Your task to perform on an android device: turn on bluetooth scan Image 0: 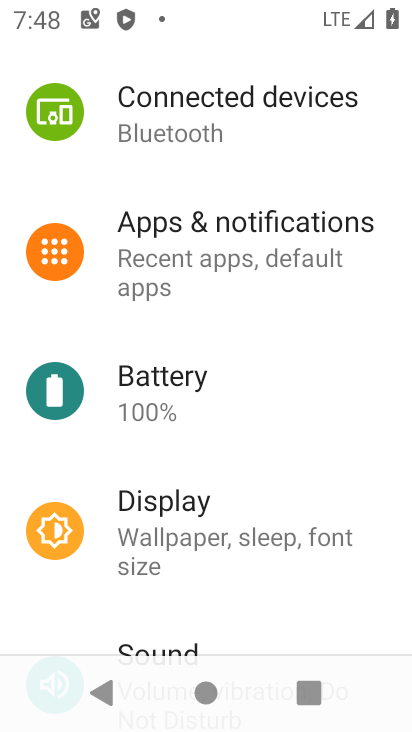
Step 0: drag from (282, 629) to (261, 368)
Your task to perform on an android device: turn on bluetooth scan Image 1: 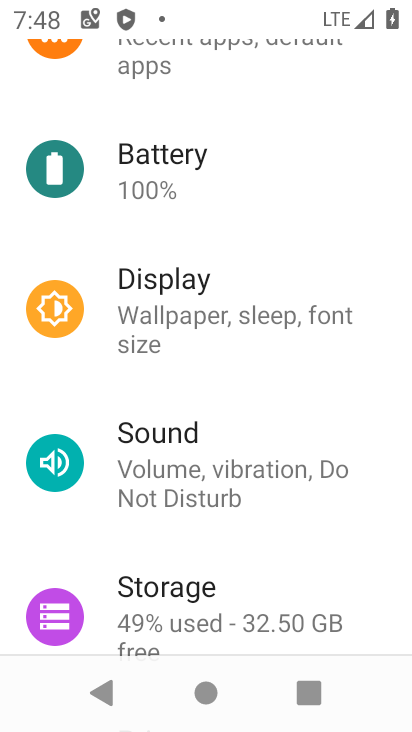
Step 1: drag from (270, 604) to (253, 252)
Your task to perform on an android device: turn on bluetooth scan Image 2: 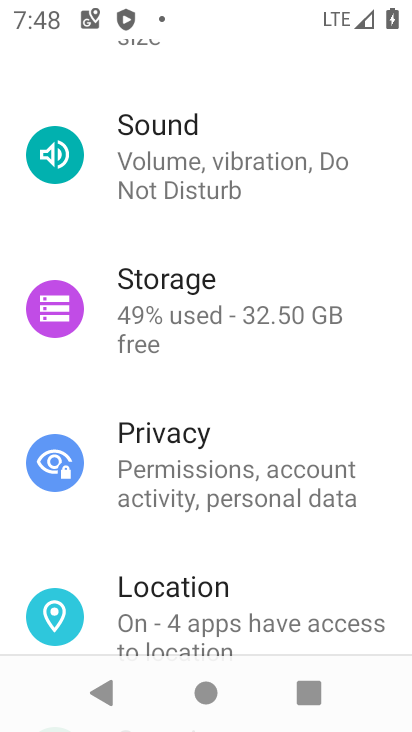
Step 2: drag from (210, 565) to (203, 208)
Your task to perform on an android device: turn on bluetooth scan Image 3: 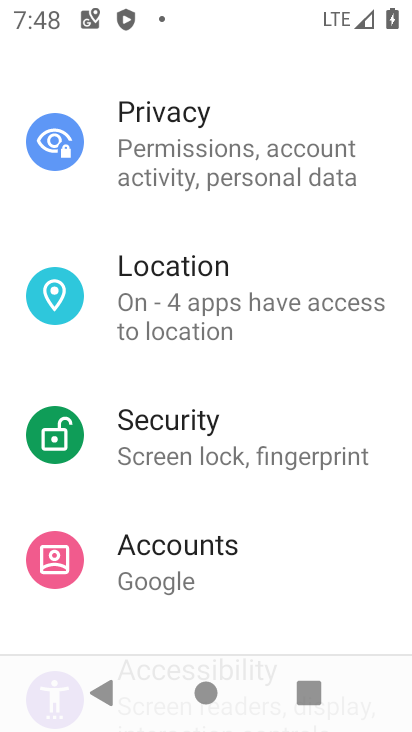
Step 3: drag from (215, 520) to (208, 296)
Your task to perform on an android device: turn on bluetooth scan Image 4: 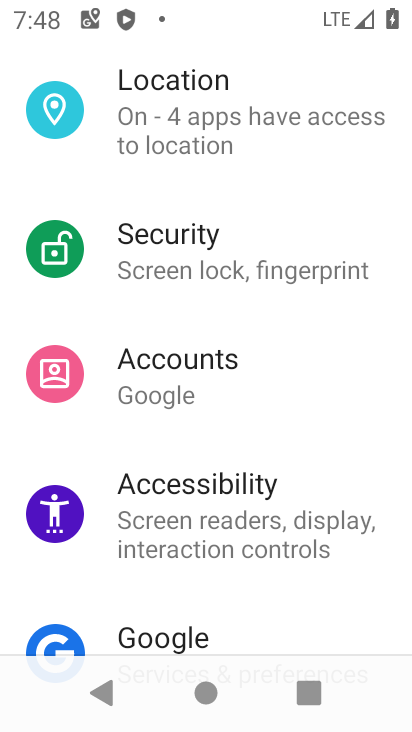
Step 4: drag from (221, 576) to (221, 487)
Your task to perform on an android device: turn on bluetooth scan Image 5: 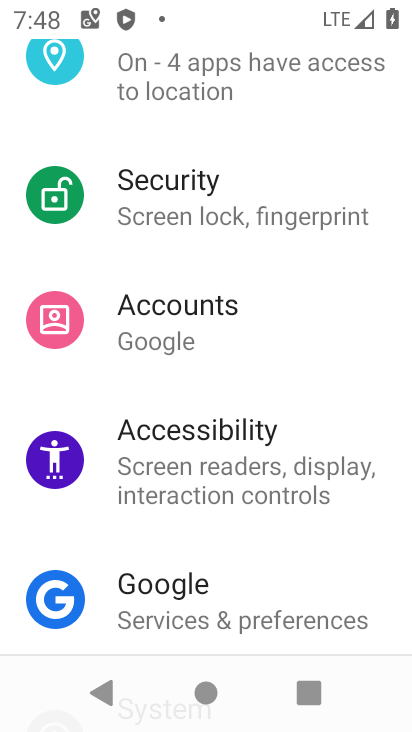
Step 5: click (221, 487)
Your task to perform on an android device: turn on bluetooth scan Image 6: 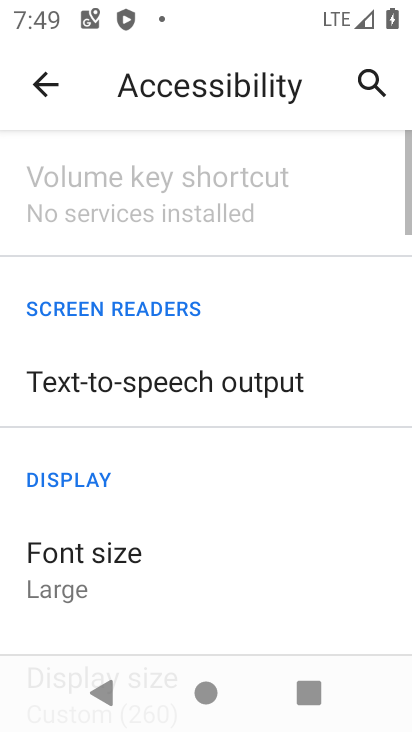
Step 6: click (221, 552)
Your task to perform on an android device: turn on bluetooth scan Image 7: 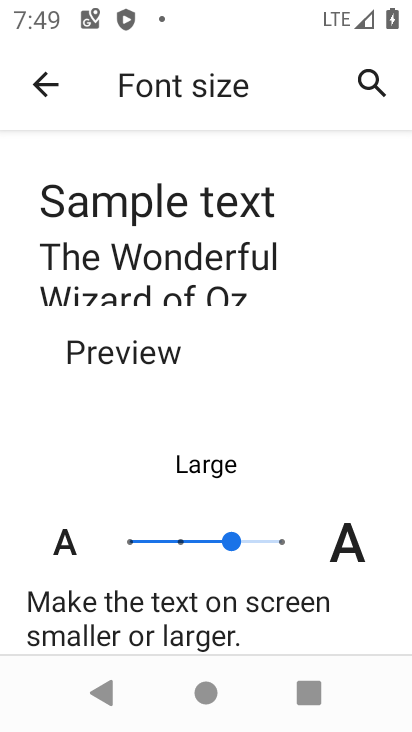
Step 7: click (41, 83)
Your task to perform on an android device: turn on bluetooth scan Image 8: 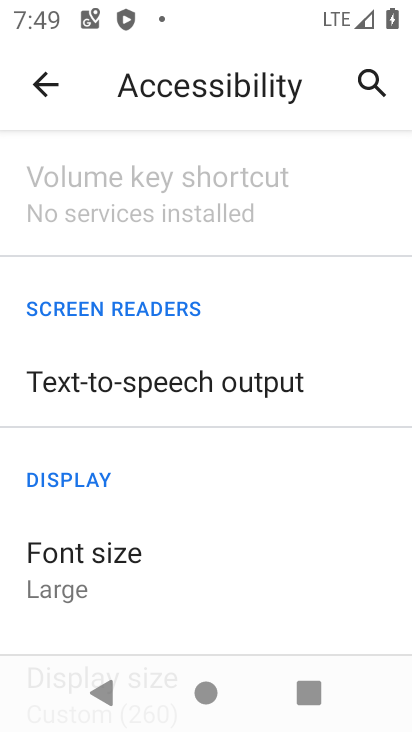
Step 8: click (37, 98)
Your task to perform on an android device: turn on bluetooth scan Image 9: 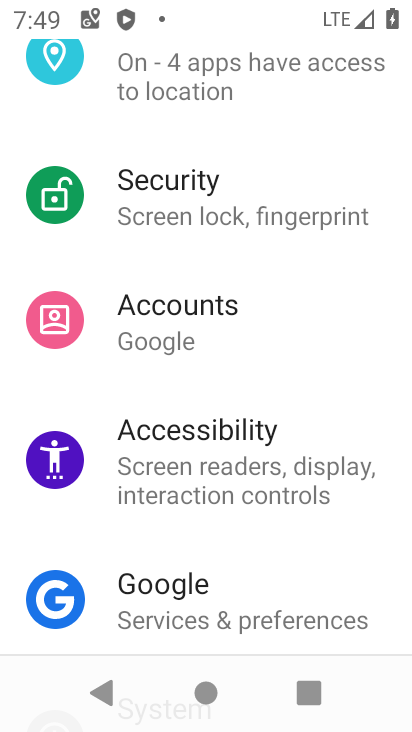
Step 9: drag from (187, 585) to (190, 408)
Your task to perform on an android device: turn on bluetooth scan Image 10: 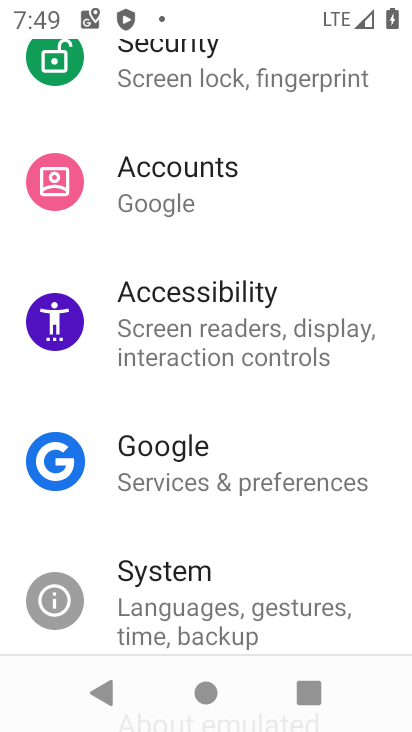
Step 10: drag from (253, 553) to (263, 334)
Your task to perform on an android device: turn on bluetooth scan Image 11: 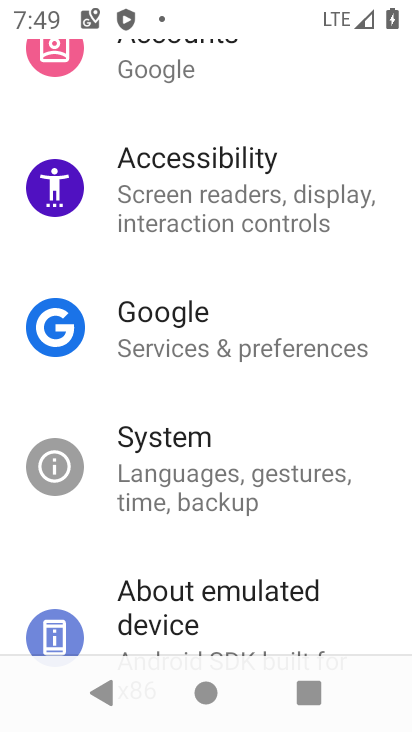
Step 11: drag from (246, 138) to (244, 416)
Your task to perform on an android device: turn on bluetooth scan Image 12: 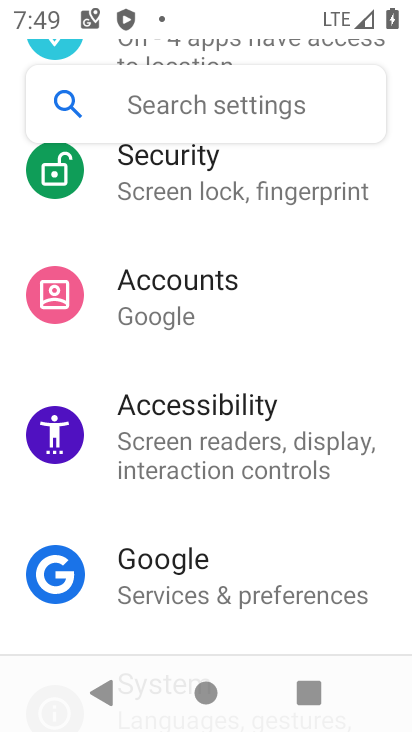
Step 12: drag from (262, 286) to (263, 562)
Your task to perform on an android device: turn on bluetooth scan Image 13: 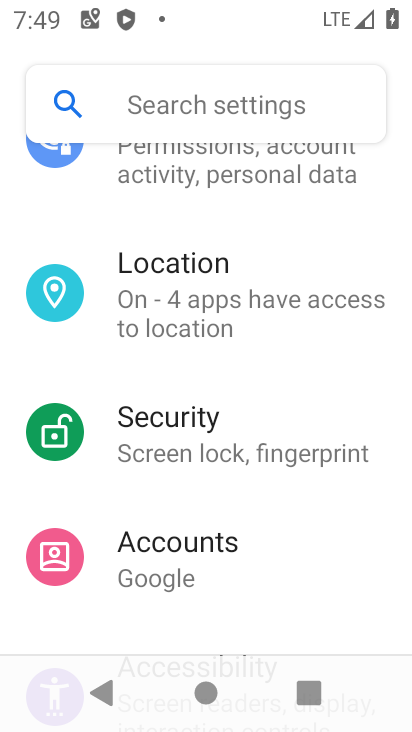
Step 13: click (241, 271)
Your task to perform on an android device: turn on bluetooth scan Image 14: 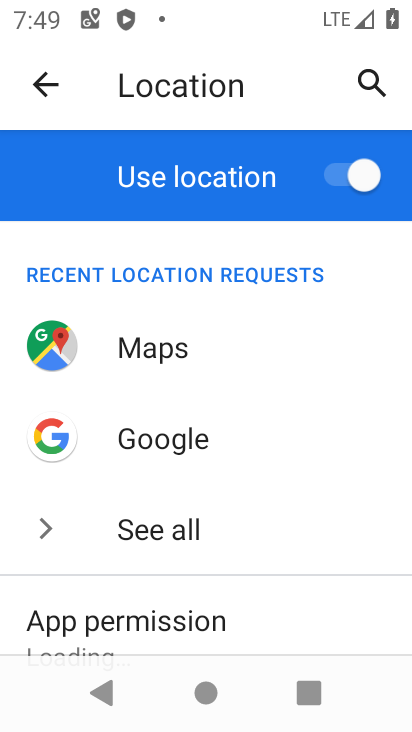
Step 14: drag from (265, 577) to (264, 441)
Your task to perform on an android device: turn on bluetooth scan Image 15: 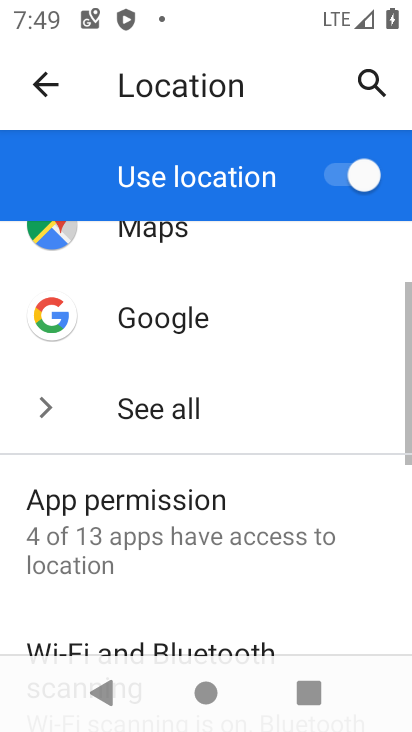
Step 15: drag from (275, 609) to (278, 392)
Your task to perform on an android device: turn on bluetooth scan Image 16: 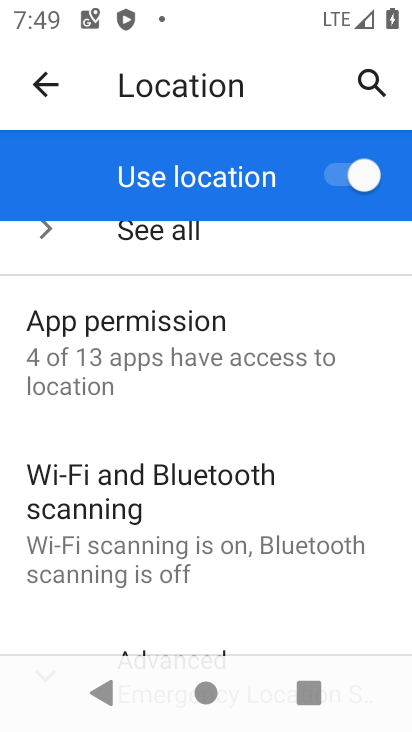
Step 16: click (249, 497)
Your task to perform on an android device: turn on bluetooth scan Image 17: 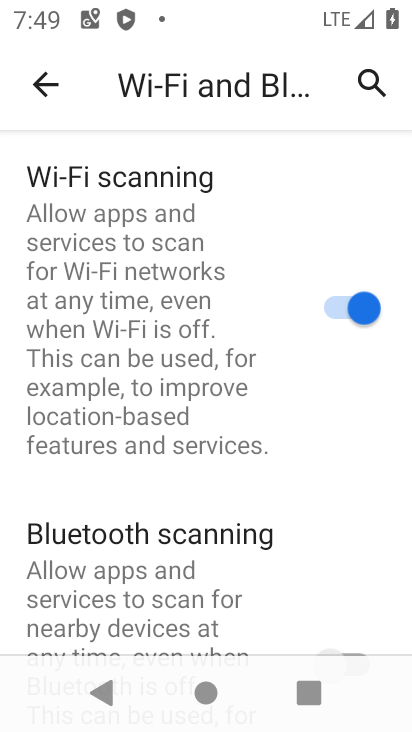
Step 17: click (317, 592)
Your task to perform on an android device: turn on bluetooth scan Image 18: 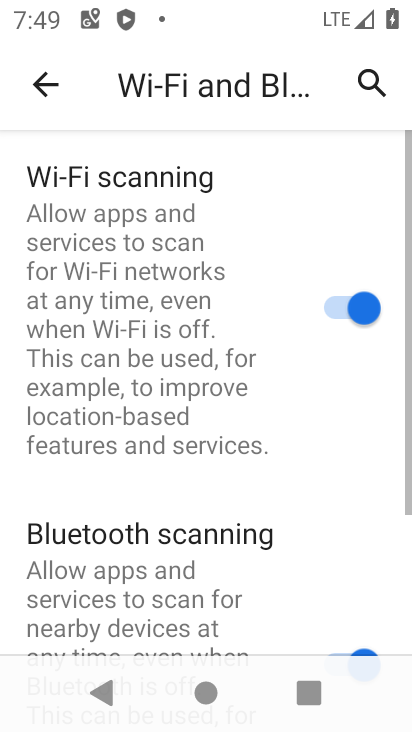
Step 18: task complete